Your task to perform on an android device: turn off smart reply in the gmail app Image 0: 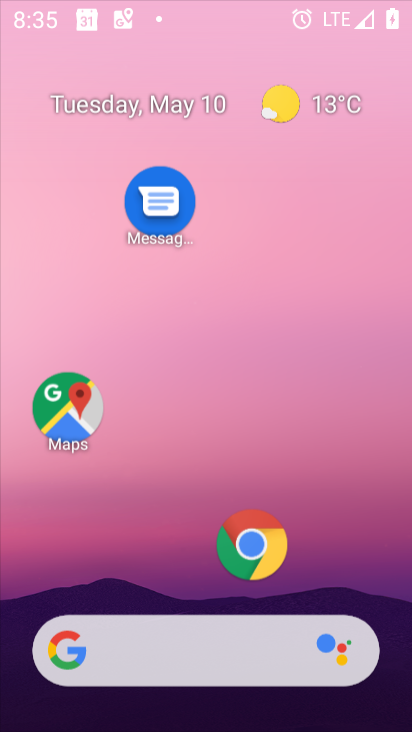
Step 0: drag from (207, 585) to (224, 60)
Your task to perform on an android device: turn off smart reply in the gmail app Image 1: 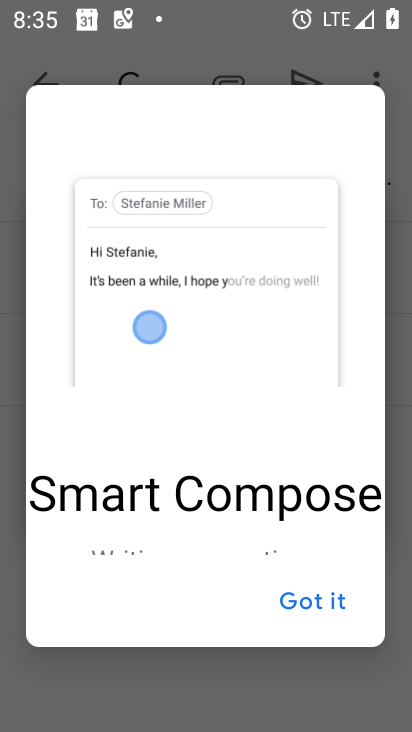
Step 1: press home button
Your task to perform on an android device: turn off smart reply in the gmail app Image 2: 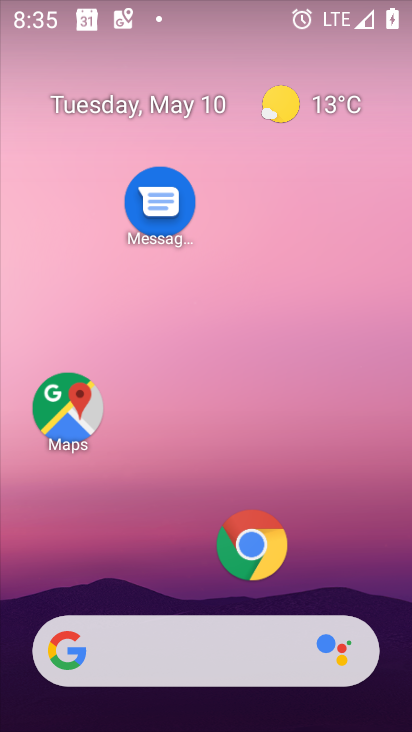
Step 2: drag from (199, 586) to (200, 126)
Your task to perform on an android device: turn off smart reply in the gmail app Image 3: 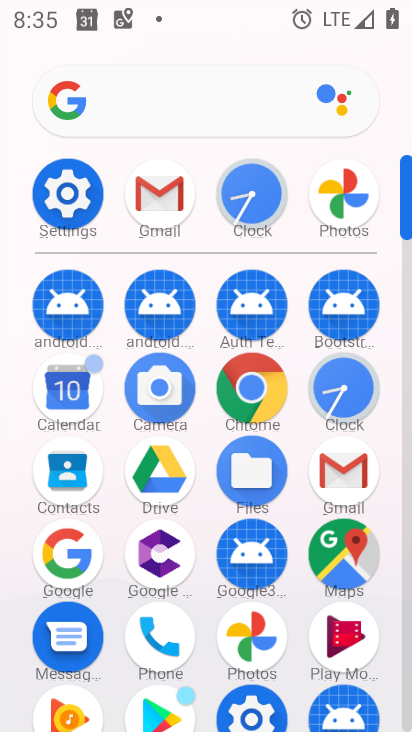
Step 3: click (157, 186)
Your task to perform on an android device: turn off smart reply in the gmail app Image 4: 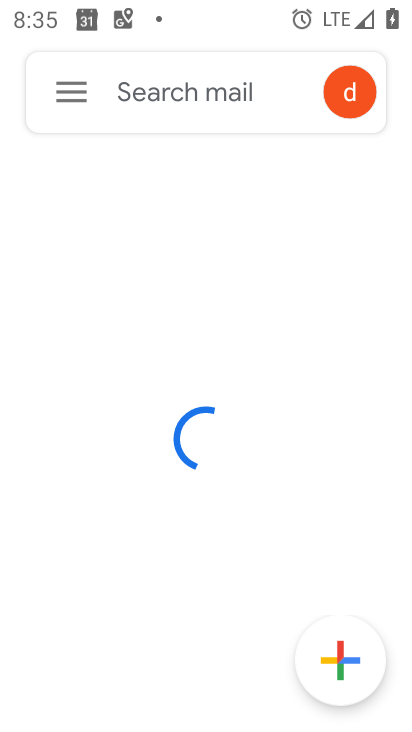
Step 4: click (74, 90)
Your task to perform on an android device: turn off smart reply in the gmail app Image 5: 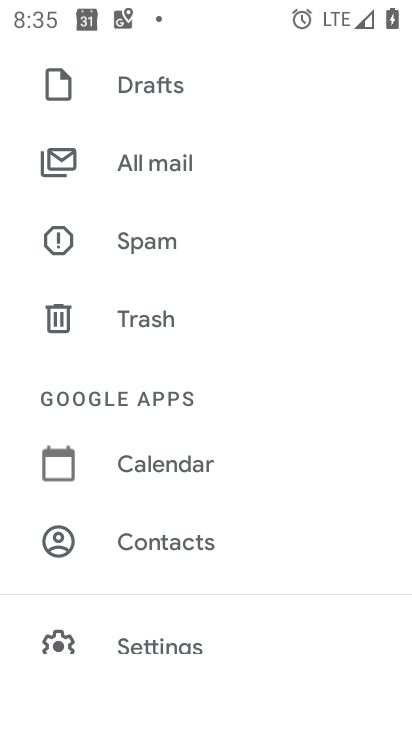
Step 5: drag from (157, 592) to (159, 240)
Your task to perform on an android device: turn off smart reply in the gmail app Image 6: 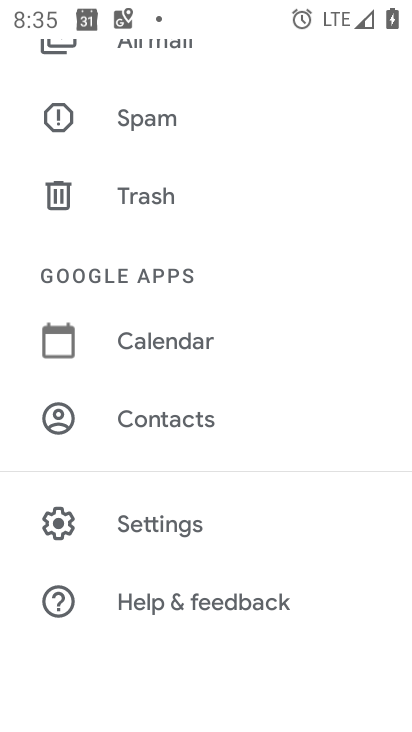
Step 6: click (211, 522)
Your task to perform on an android device: turn off smart reply in the gmail app Image 7: 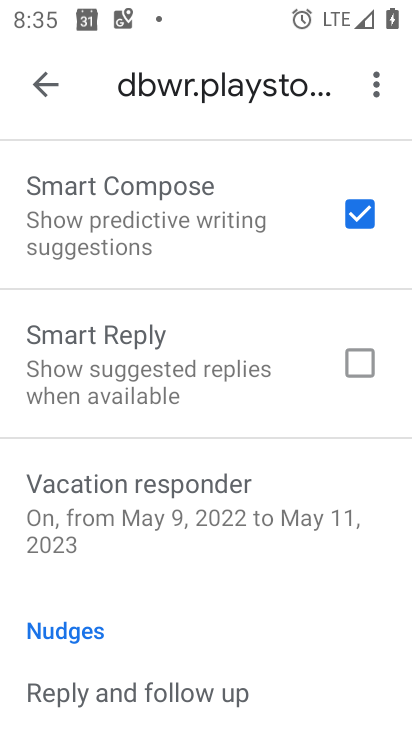
Step 7: task complete